Your task to perform on an android device: Search for the new nike air max 270 on Nike.com Image 0: 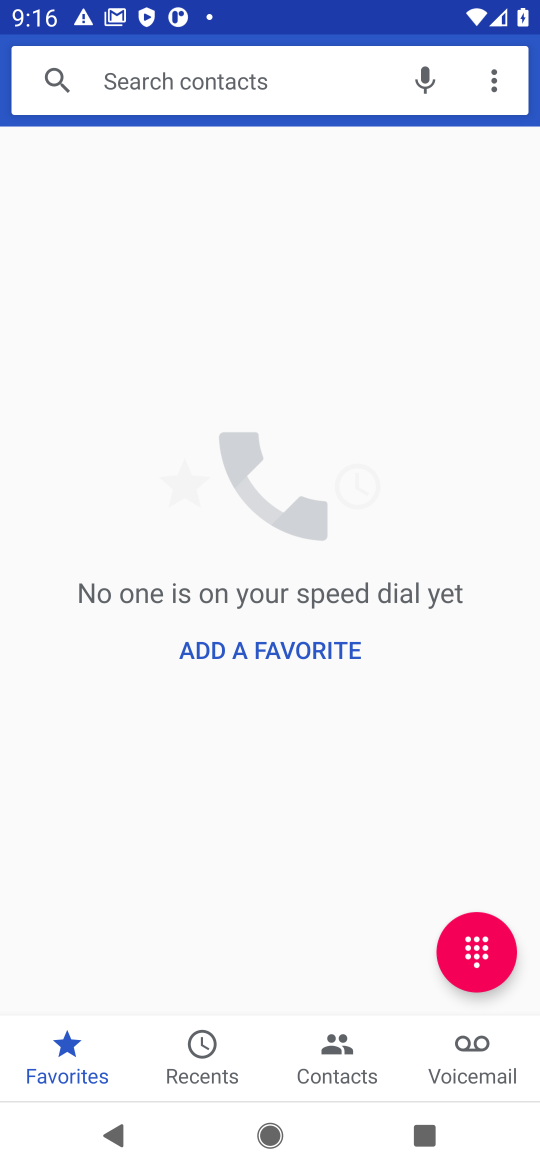
Step 0: press home button
Your task to perform on an android device: Search for the new nike air max 270 on Nike.com Image 1: 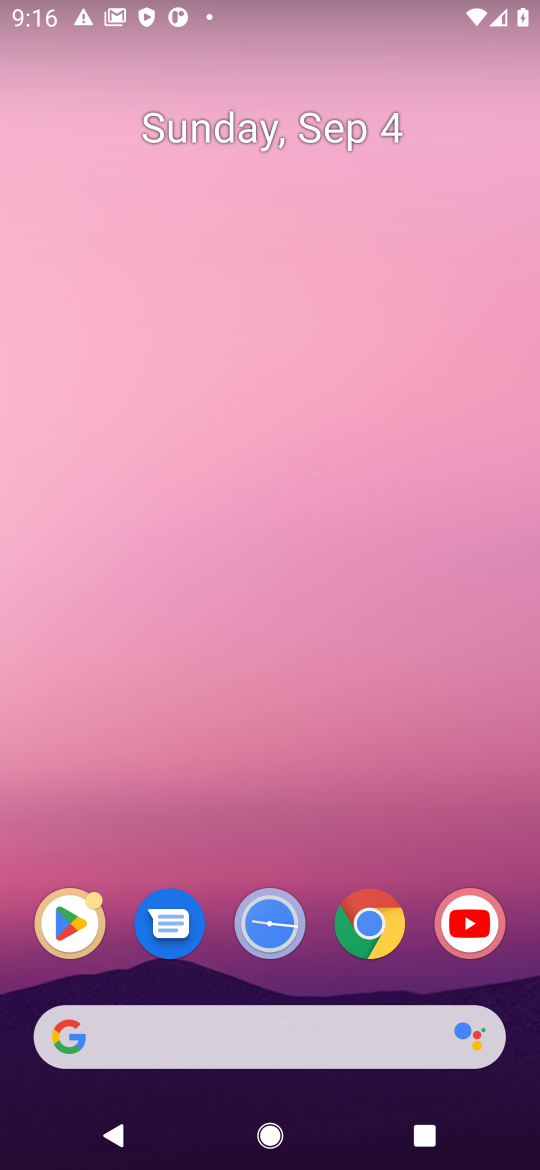
Step 1: click (384, 1039)
Your task to perform on an android device: Search for the new nike air max 270 on Nike.com Image 2: 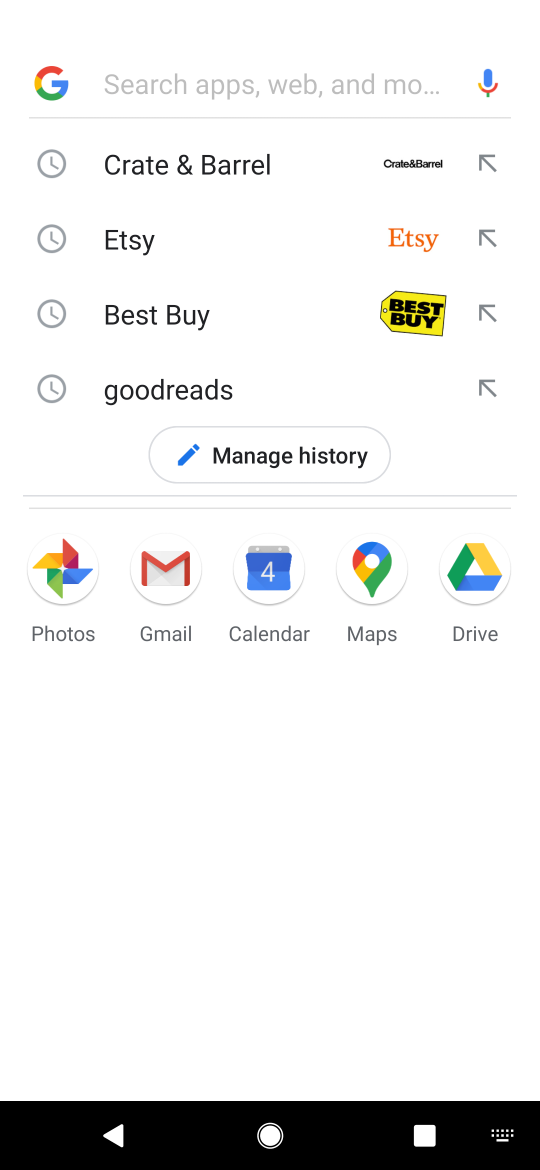
Step 2: press enter
Your task to perform on an android device: Search for the new nike air max 270 on Nike.com Image 3: 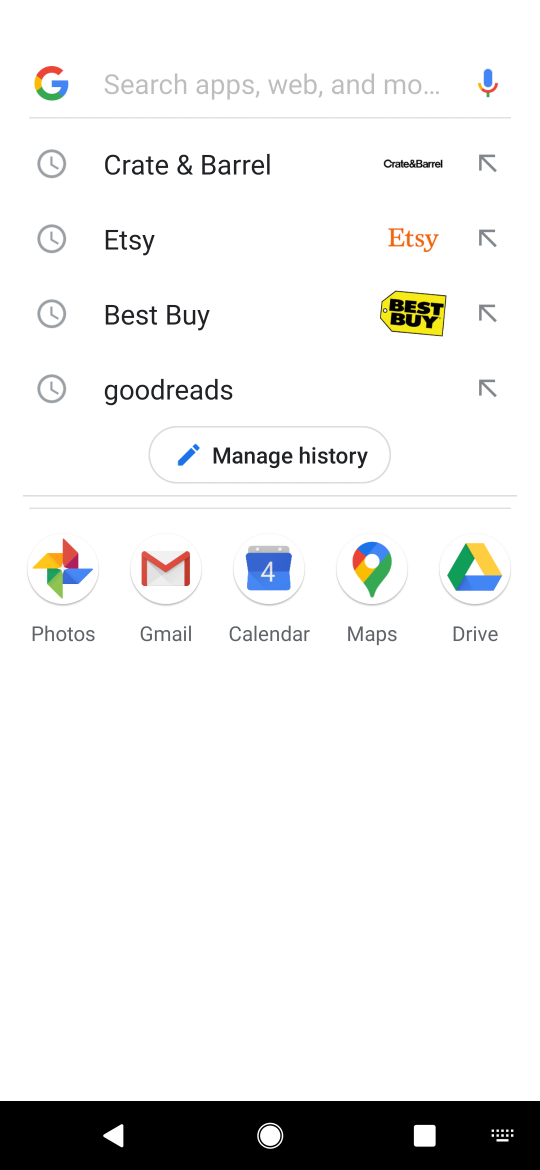
Step 3: type "nike.com"
Your task to perform on an android device: Search for the new nike air max 270 on Nike.com Image 4: 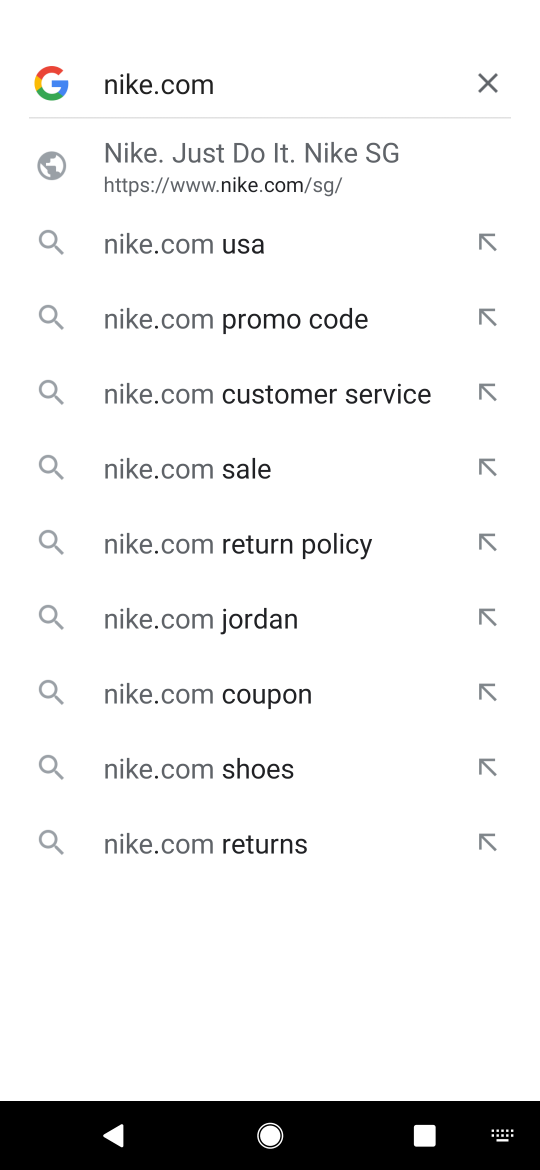
Step 4: click (266, 156)
Your task to perform on an android device: Search for the new nike air max 270 on Nike.com Image 5: 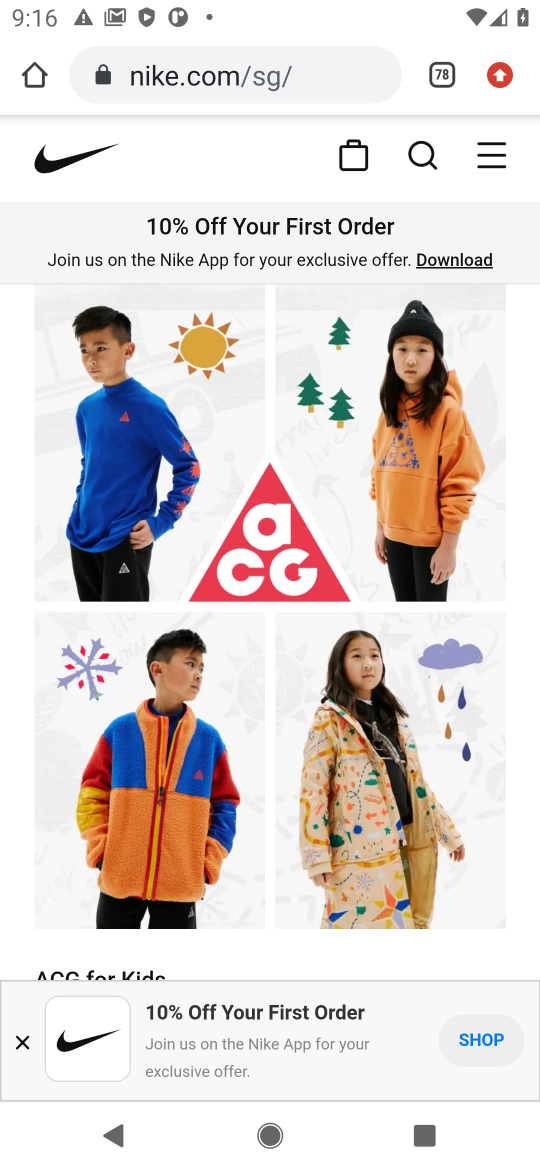
Step 5: click (421, 153)
Your task to perform on an android device: Search for the new nike air max 270 on Nike.com Image 6: 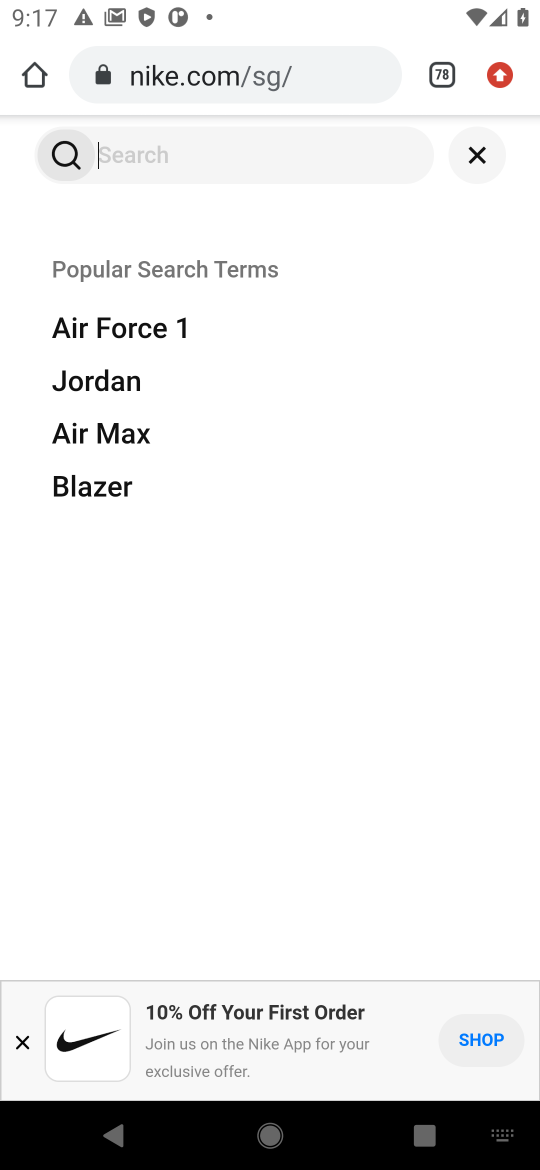
Step 6: press enter
Your task to perform on an android device: Search for the new nike air max 270 on Nike.com Image 7: 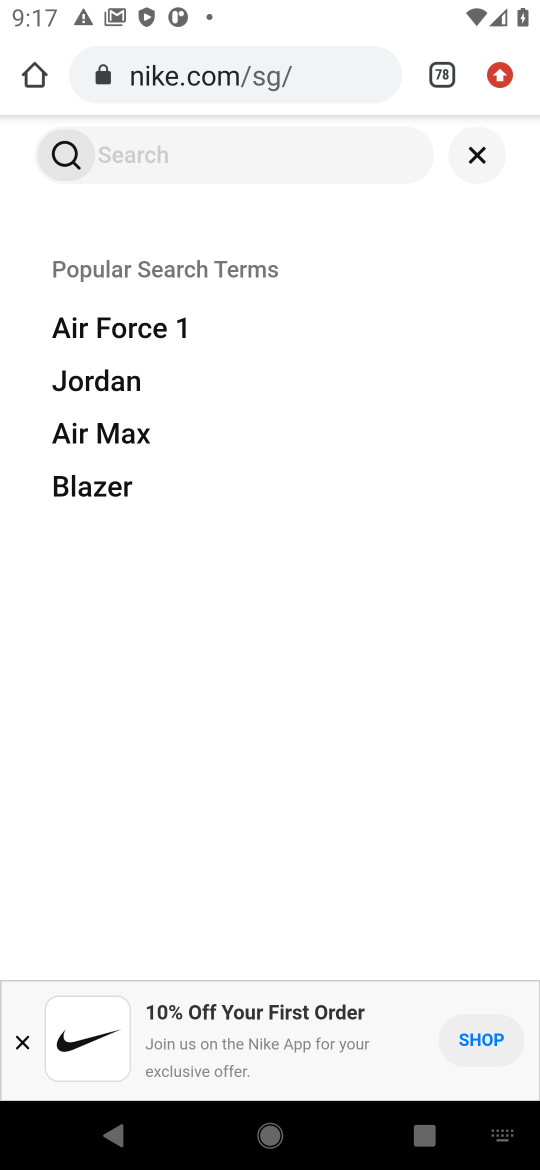
Step 7: type "nike air max 270"
Your task to perform on an android device: Search for the new nike air max 270 on Nike.com Image 8: 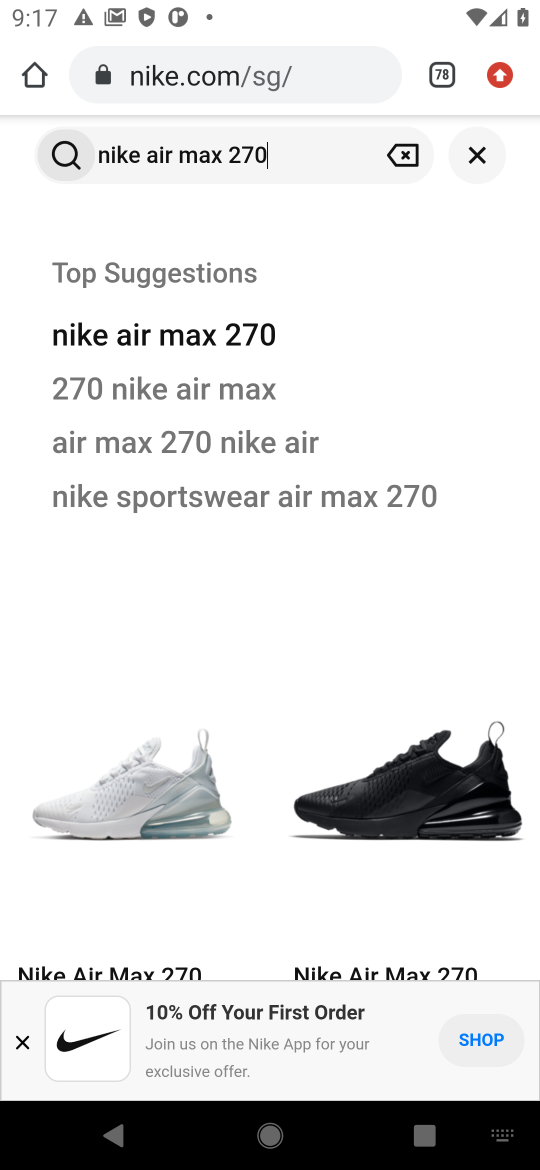
Step 8: task complete